Your task to perform on an android device: turn off wifi Image 0: 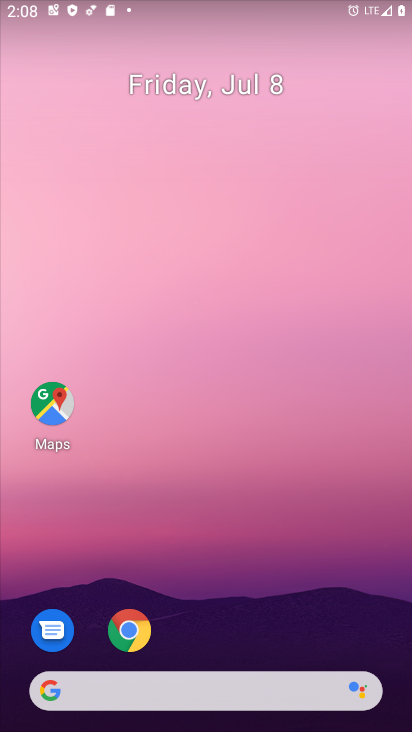
Step 0: press home button
Your task to perform on an android device: turn off wifi Image 1: 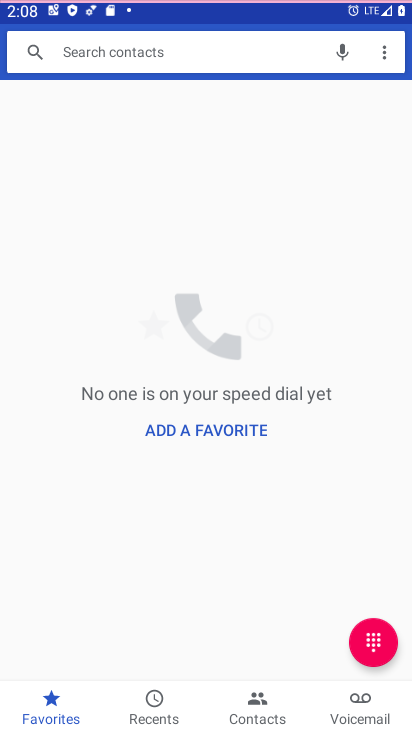
Step 1: task complete